Your task to perform on an android device: Open the web browser Image 0: 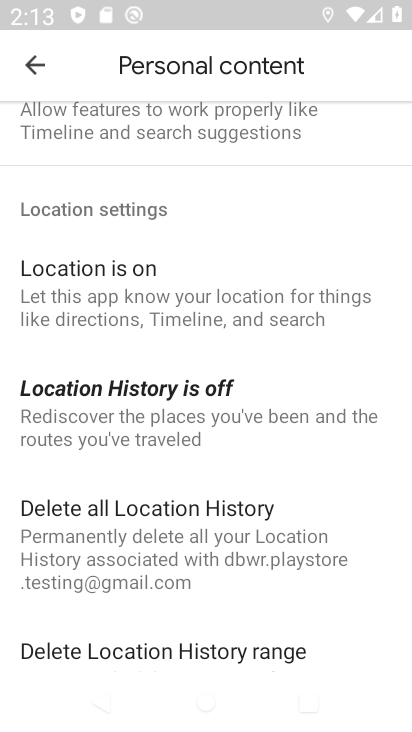
Step 0: press home button
Your task to perform on an android device: Open the web browser Image 1: 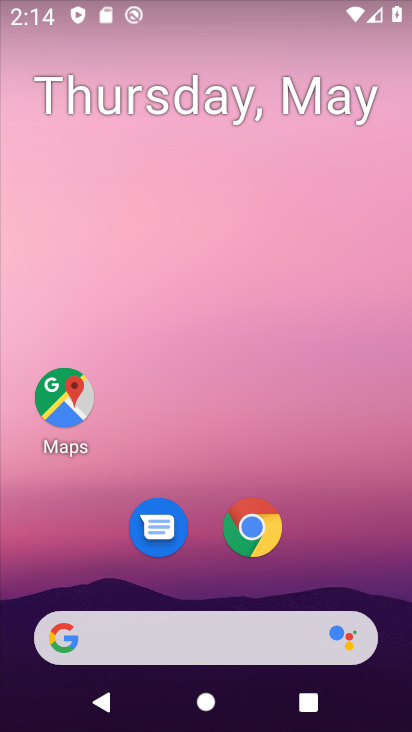
Step 1: click (242, 537)
Your task to perform on an android device: Open the web browser Image 2: 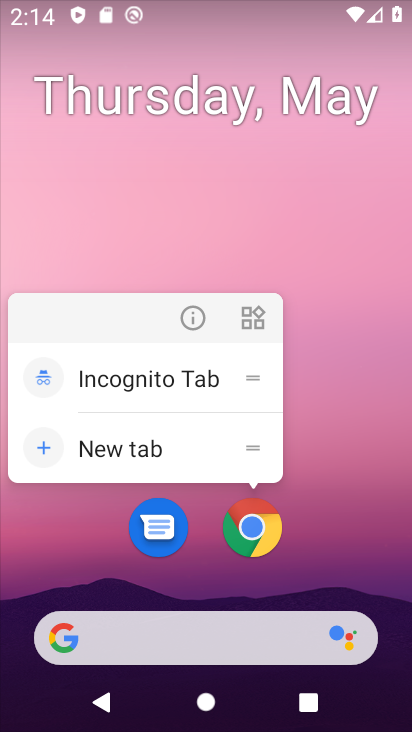
Step 2: click (242, 537)
Your task to perform on an android device: Open the web browser Image 3: 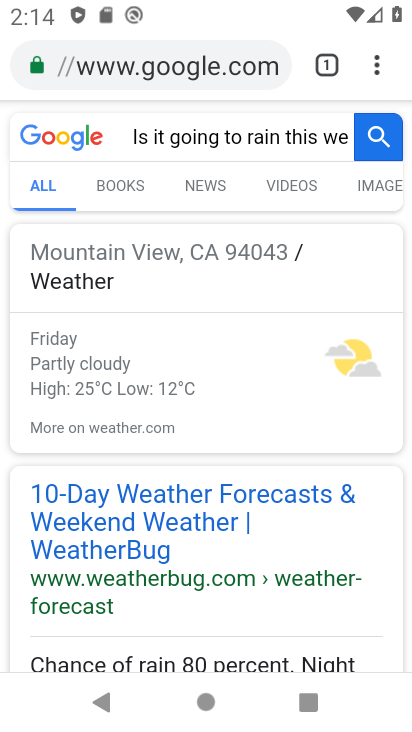
Step 3: click (215, 74)
Your task to perform on an android device: Open the web browser Image 4: 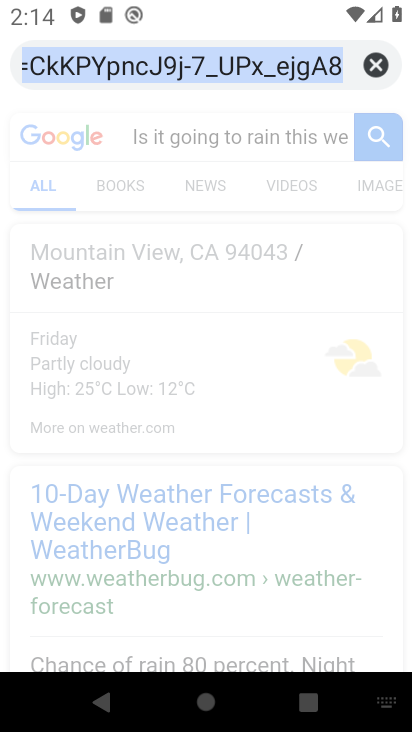
Step 4: click (369, 60)
Your task to perform on an android device: Open the web browser Image 5: 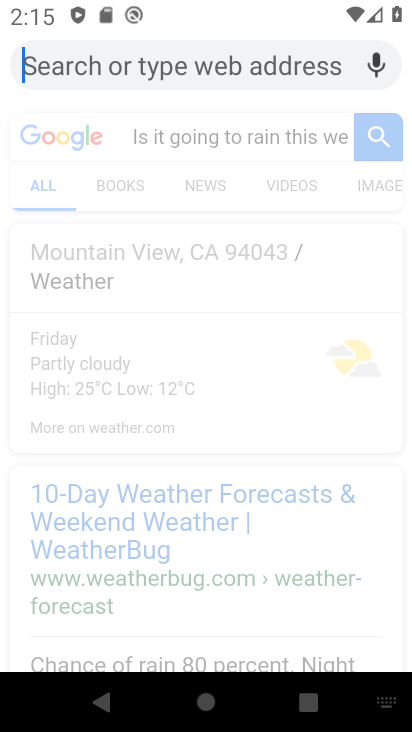
Step 5: type " web browser"
Your task to perform on an android device: Open the web browser Image 6: 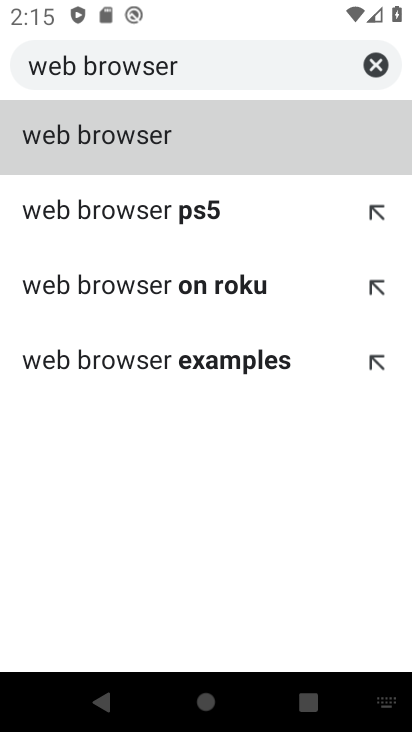
Step 6: click (176, 139)
Your task to perform on an android device: Open the web browser Image 7: 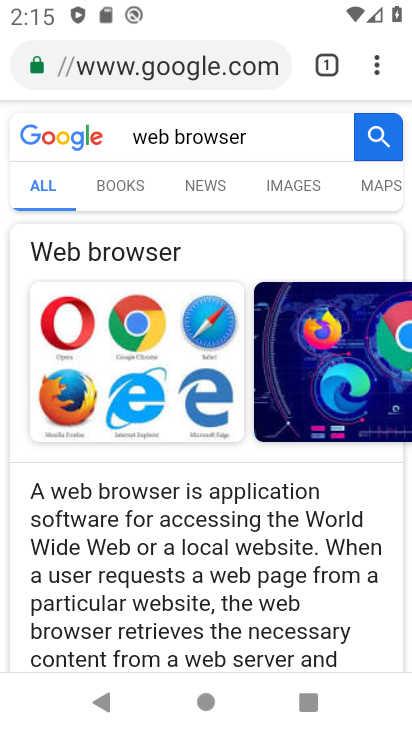
Step 7: task complete